Your task to perform on an android device: Open display settings Image 0: 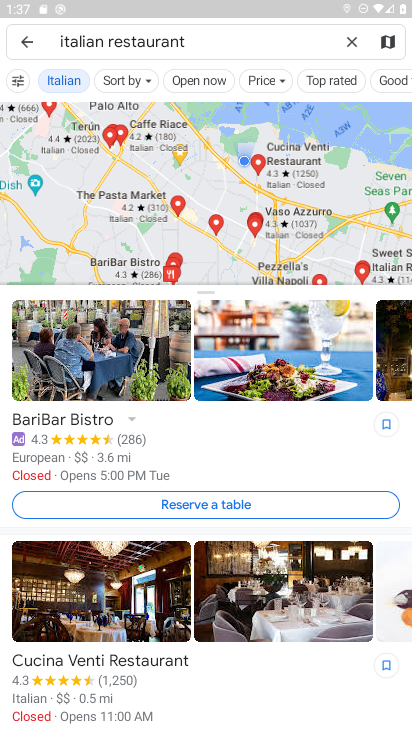
Step 0: press home button
Your task to perform on an android device: Open display settings Image 1: 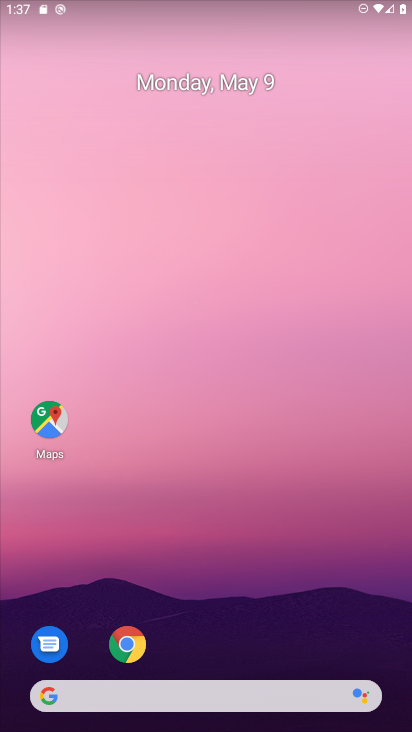
Step 1: drag from (210, 597) to (38, 34)
Your task to perform on an android device: Open display settings Image 2: 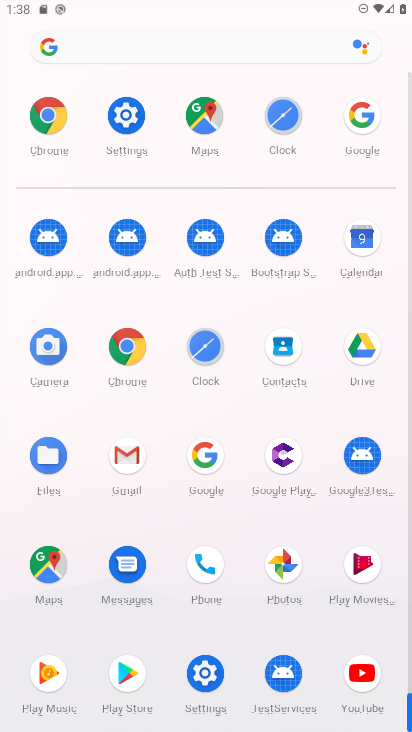
Step 2: click (199, 676)
Your task to perform on an android device: Open display settings Image 3: 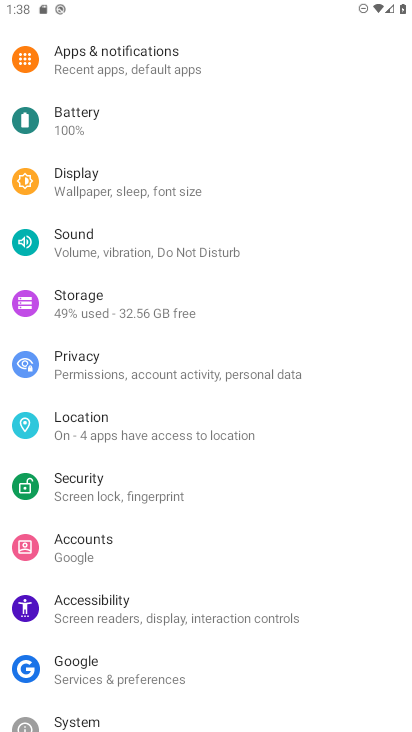
Step 3: click (67, 192)
Your task to perform on an android device: Open display settings Image 4: 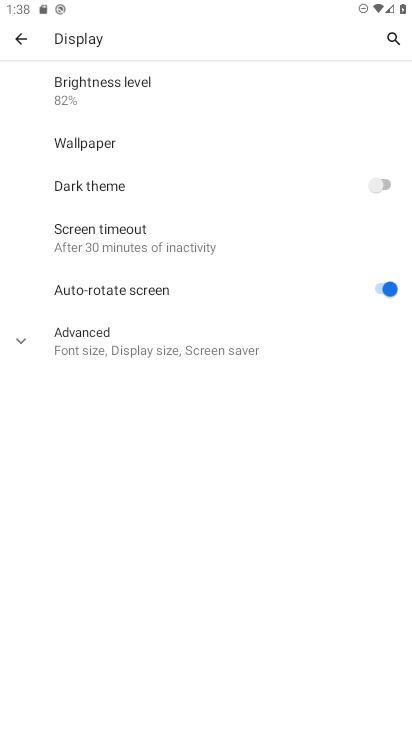
Step 4: task complete